Your task to perform on an android device: open wifi settings Image 0: 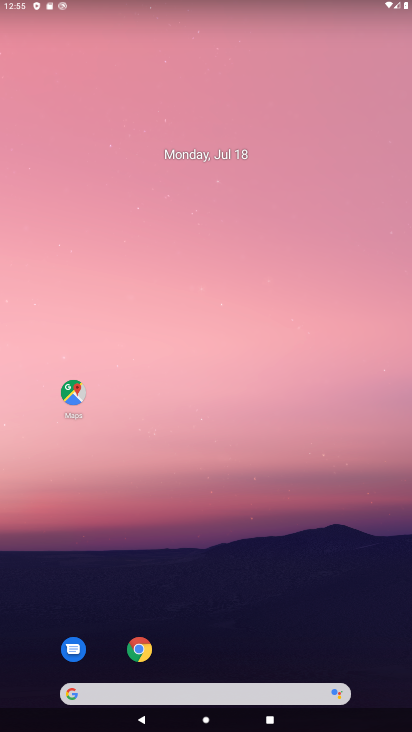
Step 0: drag from (211, 673) to (154, 53)
Your task to perform on an android device: open wifi settings Image 1: 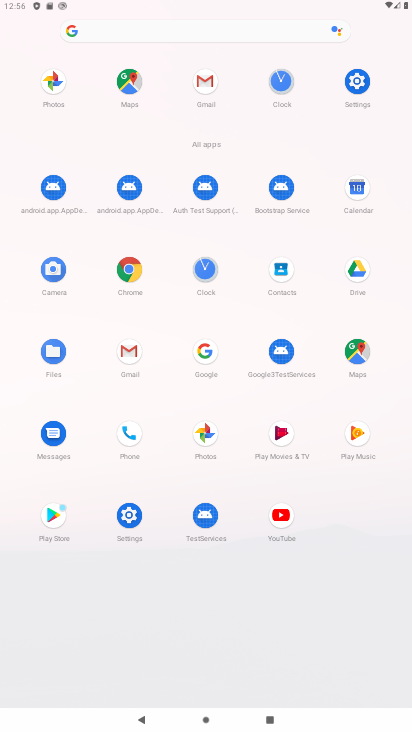
Step 1: click (129, 519)
Your task to perform on an android device: open wifi settings Image 2: 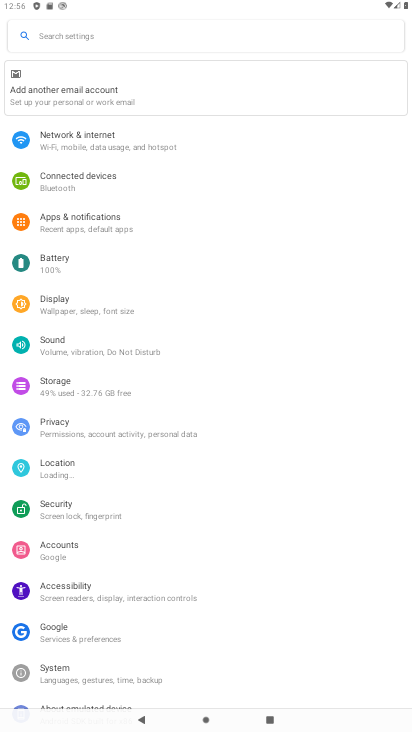
Step 2: click (88, 149)
Your task to perform on an android device: open wifi settings Image 3: 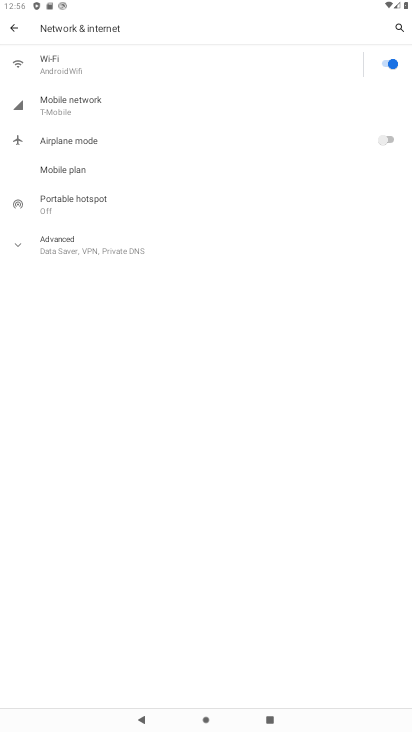
Step 3: click (228, 50)
Your task to perform on an android device: open wifi settings Image 4: 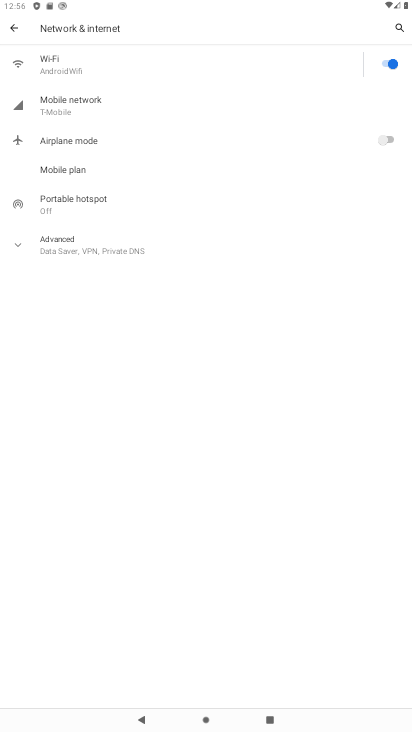
Step 4: task complete